Your task to perform on an android device: open app "Nova Launcher" (install if not already installed) and go to login screen Image 0: 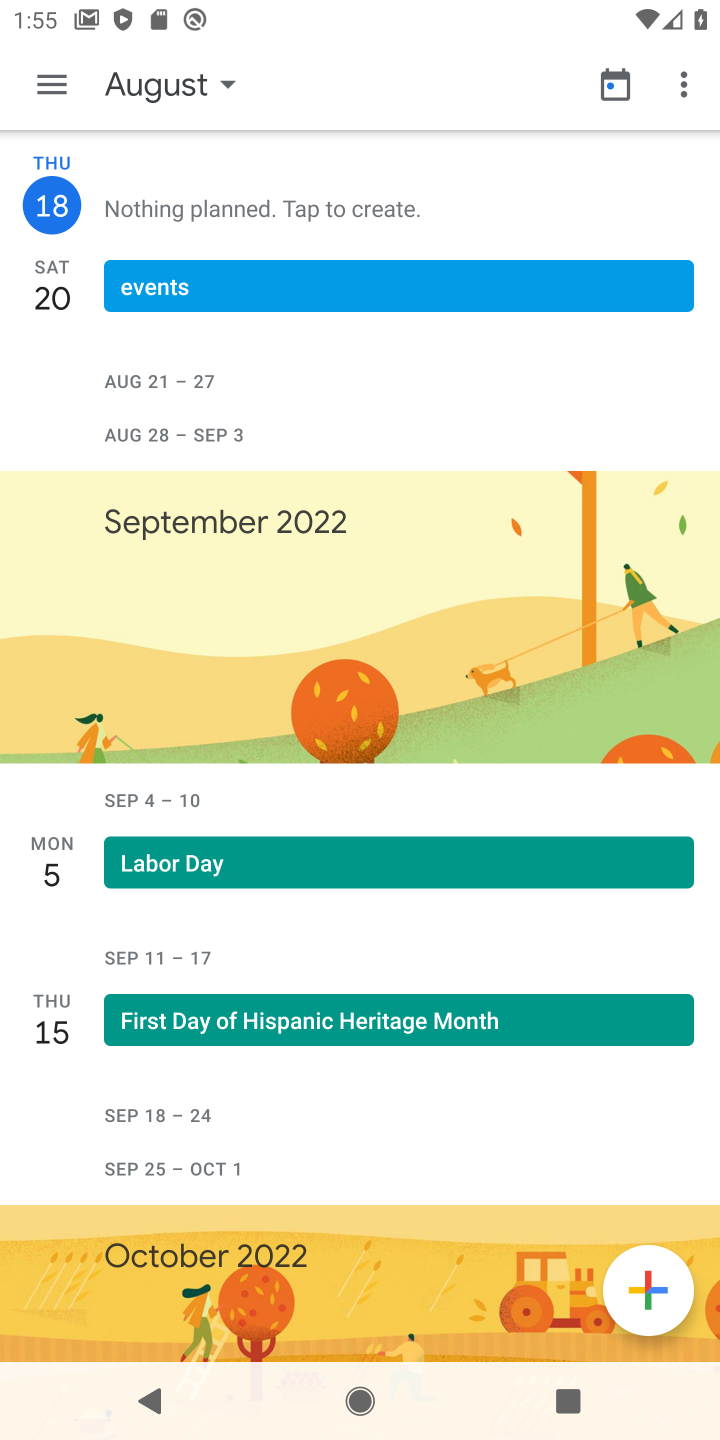
Step 0: press home button
Your task to perform on an android device: open app "Nova Launcher" (install if not already installed) and go to login screen Image 1: 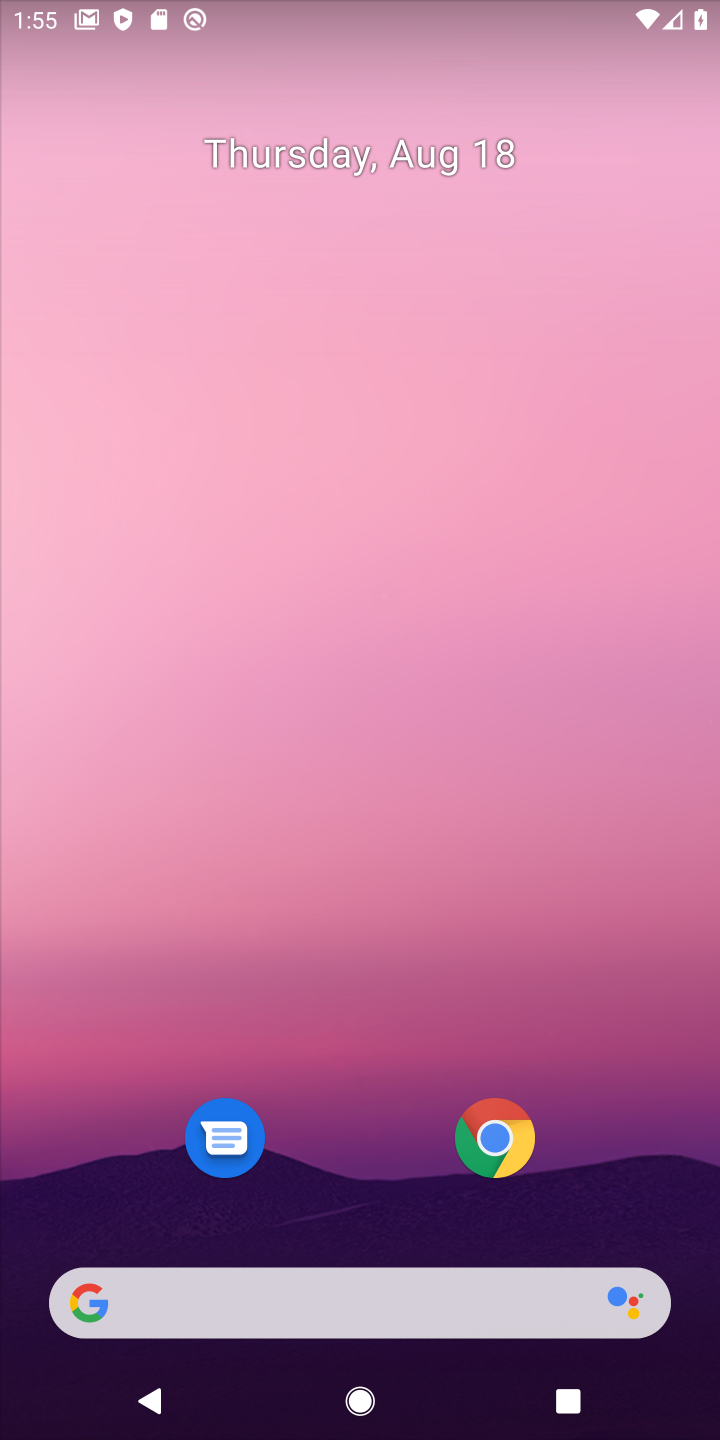
Step 1: drag from (329, 872) to (413, 361)
Your task to perform on an android device: open app "Nova Launcher" (install if not already installed) and go to login screen Image 2: 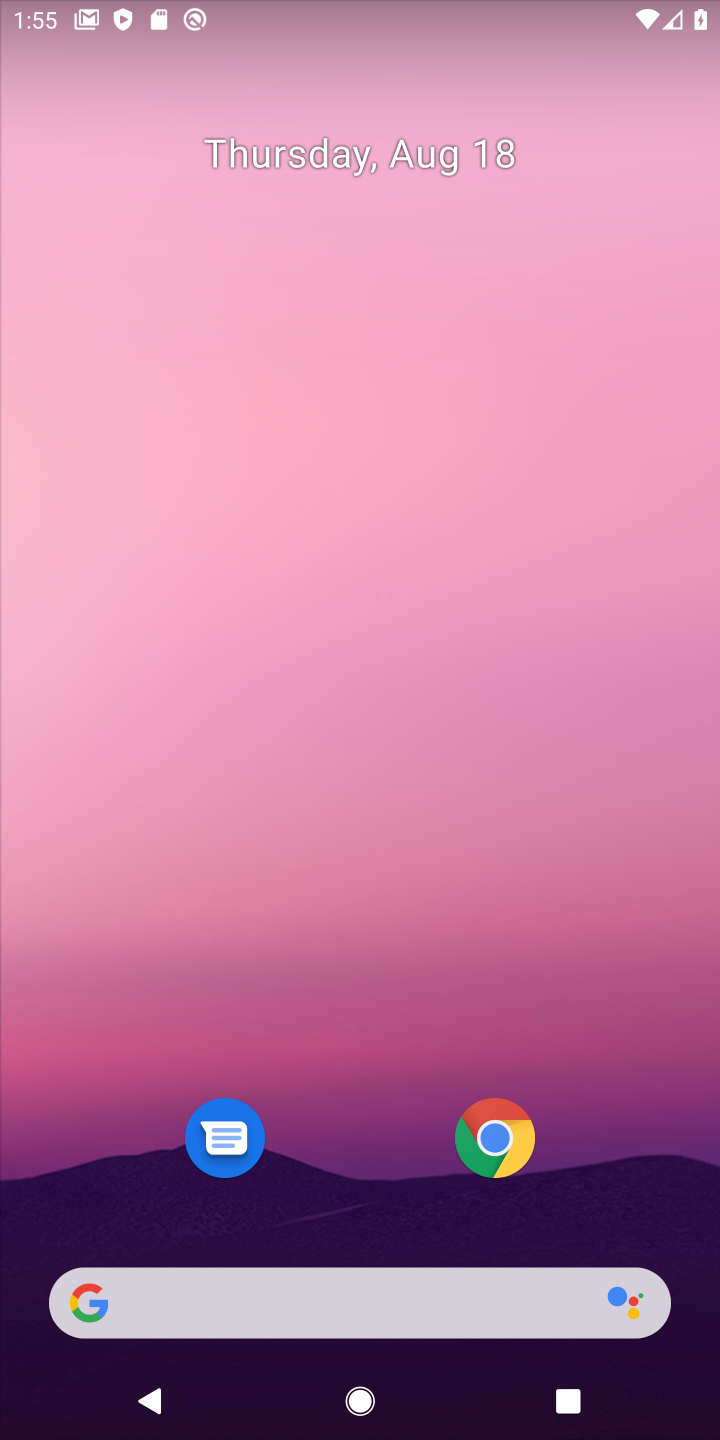
Step 2: drag from (488, 901) to (543, 235)
Your task to perform on an android device: open app "Nova Launcher" (install if not already installed) and go to login screen Image 3: 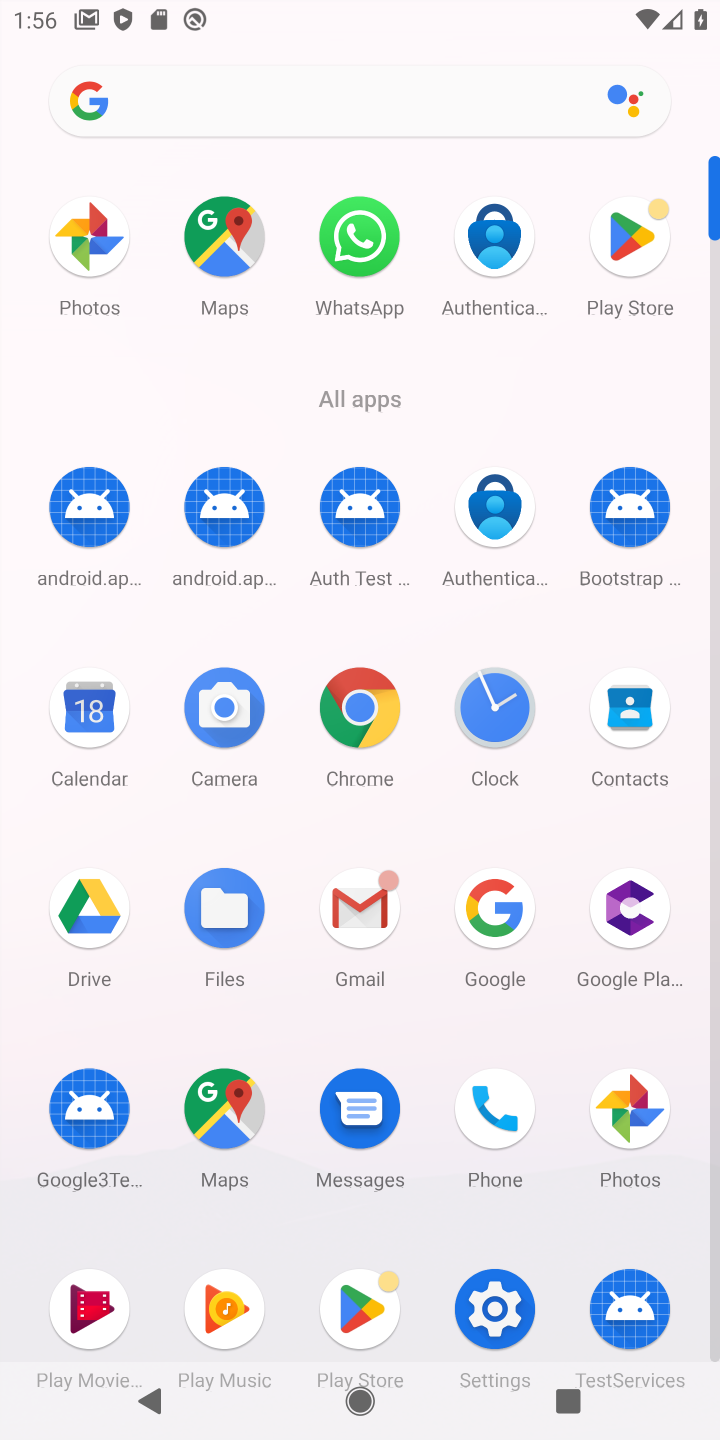
Step 3: click (359, 1299)
Your task to perform on an android device: open app "Nova Launcher" (install if not already installed) and go to login screen Image 4: 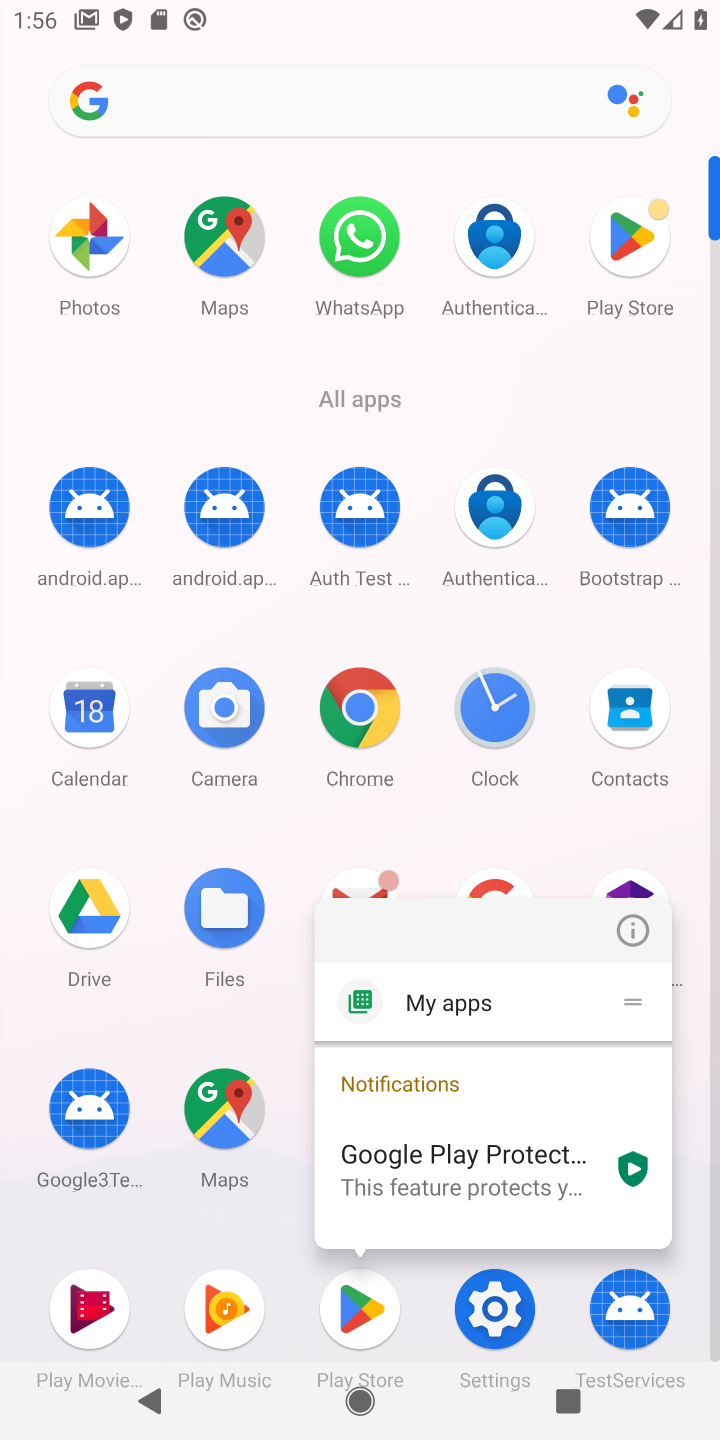
Step 4: click (375, 1328)
Your task to perform on an android device: open app "Nova Launcher" (install if not already installed) and go to login screen Image 5: 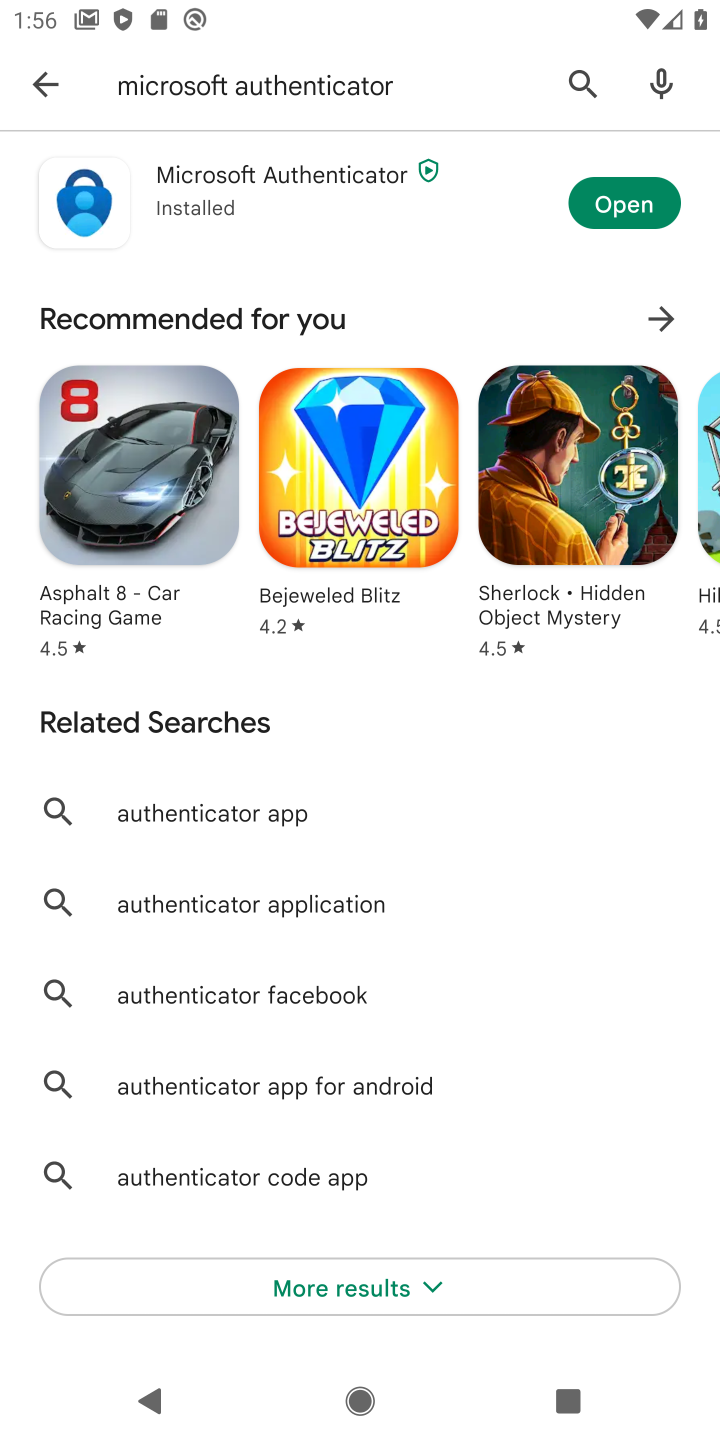
Step 5: click (46, 77)
Your task to perform on an android device: open app "Nova Launcher" (install if not already installed) and go to login screen Image 6: 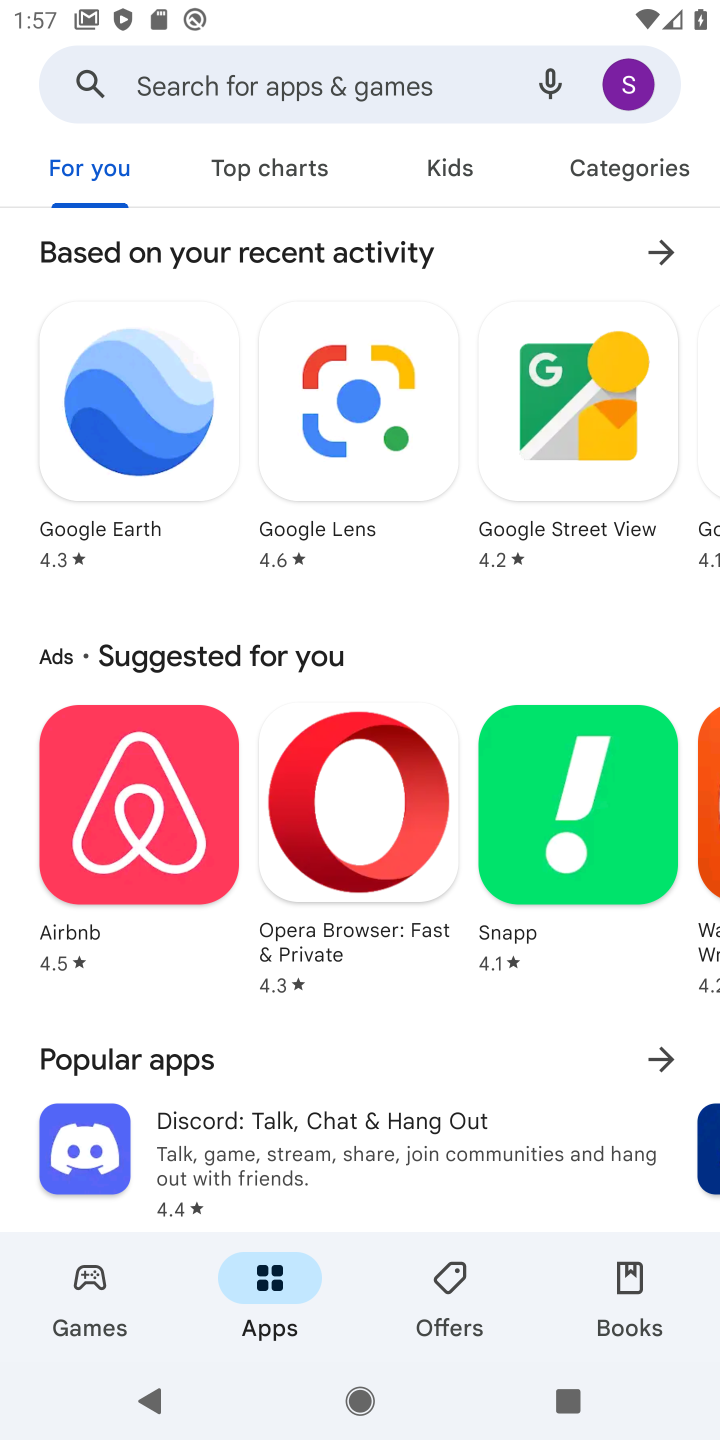
Step 6: click (317, 84)
Your task to perform on an android device: open app "Nova Launcher" (install if not already installed) and go to login screen Image 7: 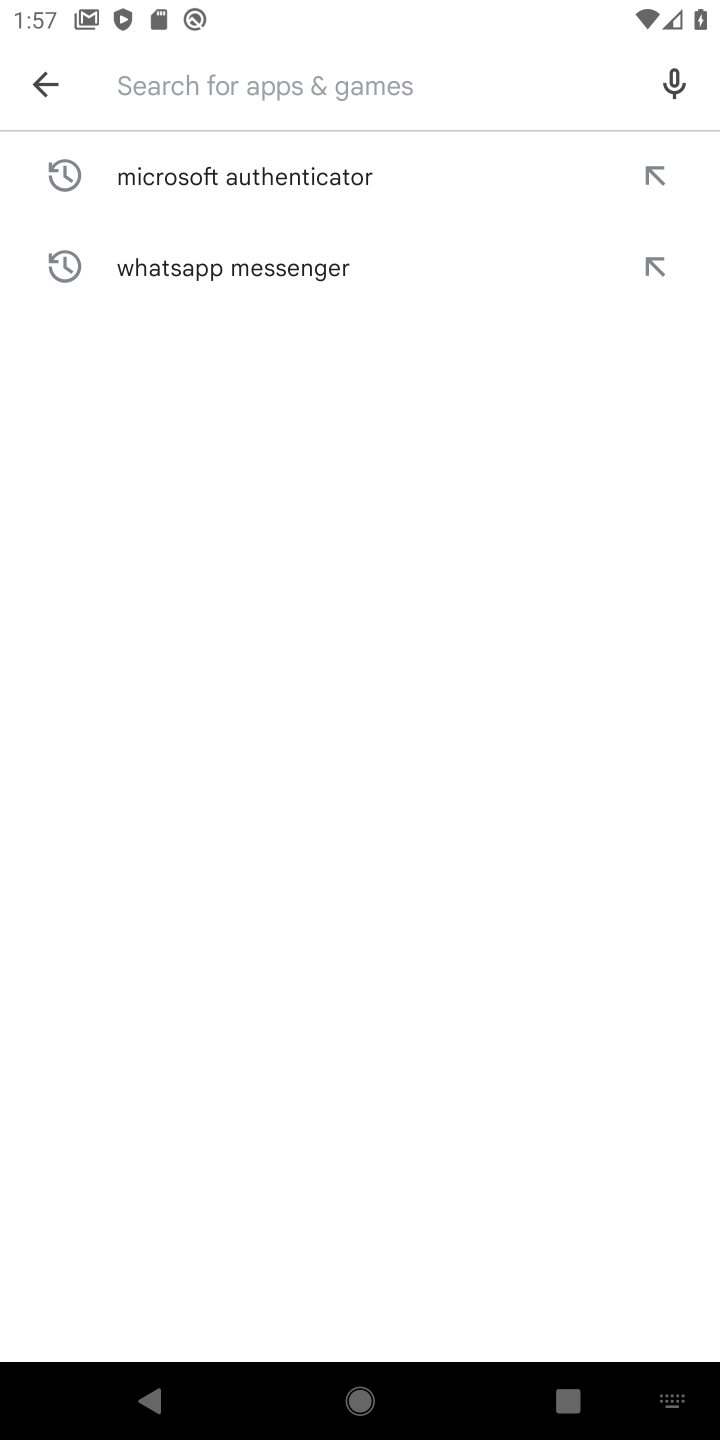
Step 7: type "Nova Launcher"
Your task to perform on an android device: open app "Nova Launcher" (install if not already installed) and go to login screen Image 8: 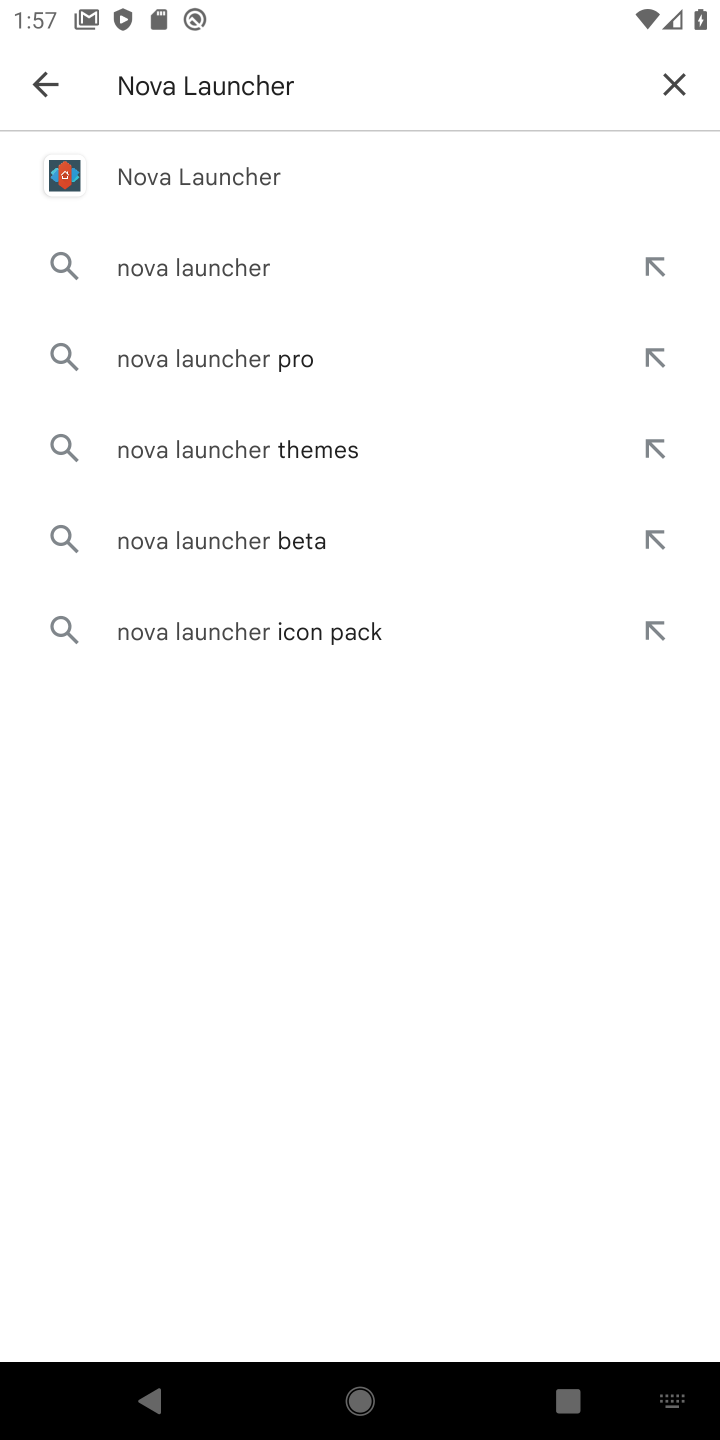
Step 8: click (249, 165)
Your task to perform on an android device: open app "Nova Launcher" (install if not already installed) and go to login screen Image 9: 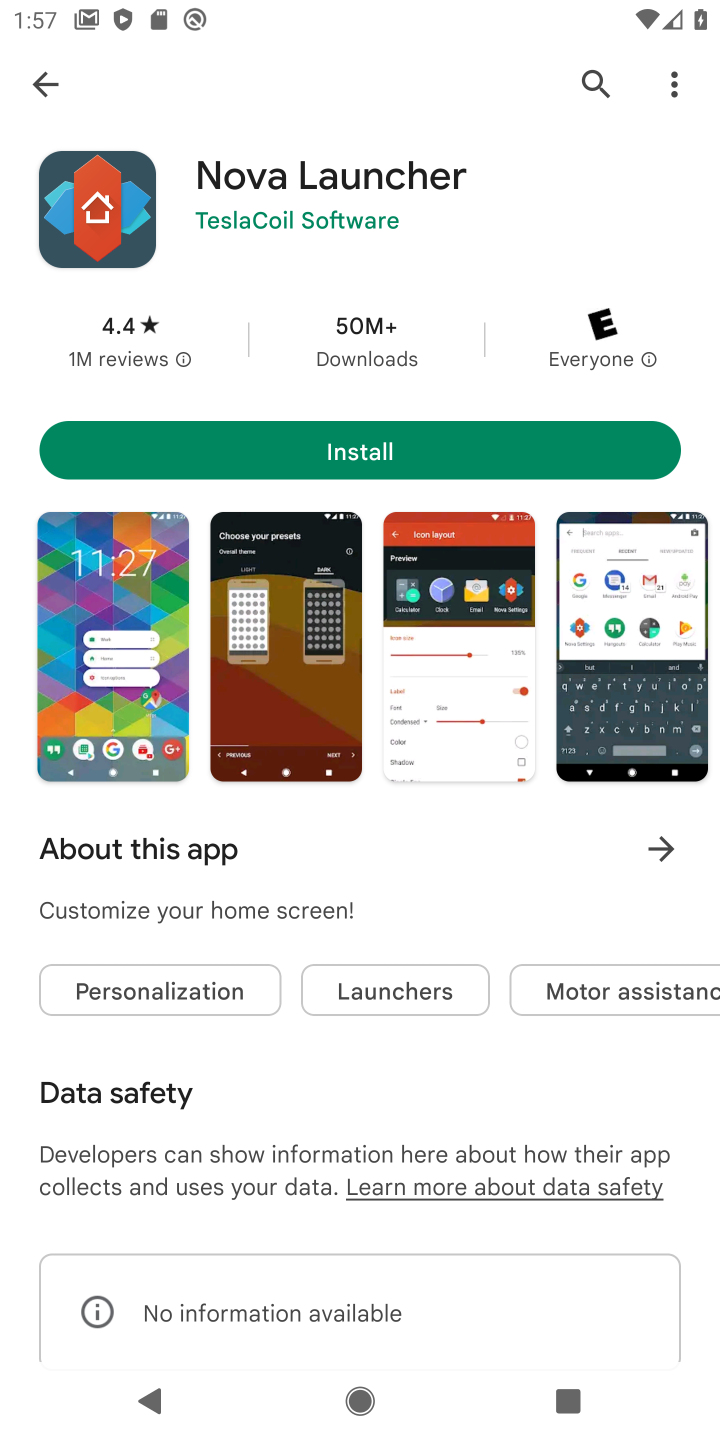
Step 9: click (386, 461)
Your task to perform on an android device: open app "Nova Launcher" (install if not already installed) and go to login screen Image 10: 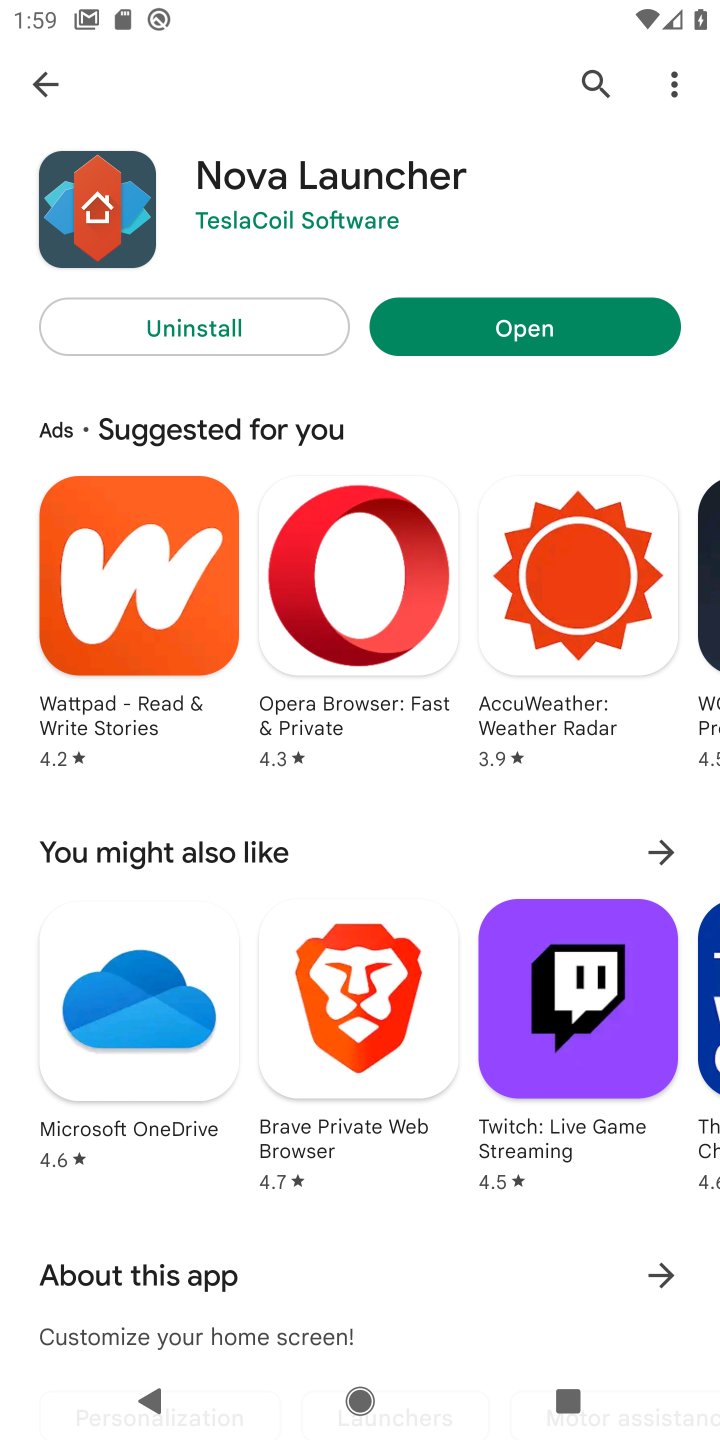
Step 10: click (533, 329)
Your task to perform on an android device: open app "Nova Launcher" (install if not already installed) and go to login screen Image 11: 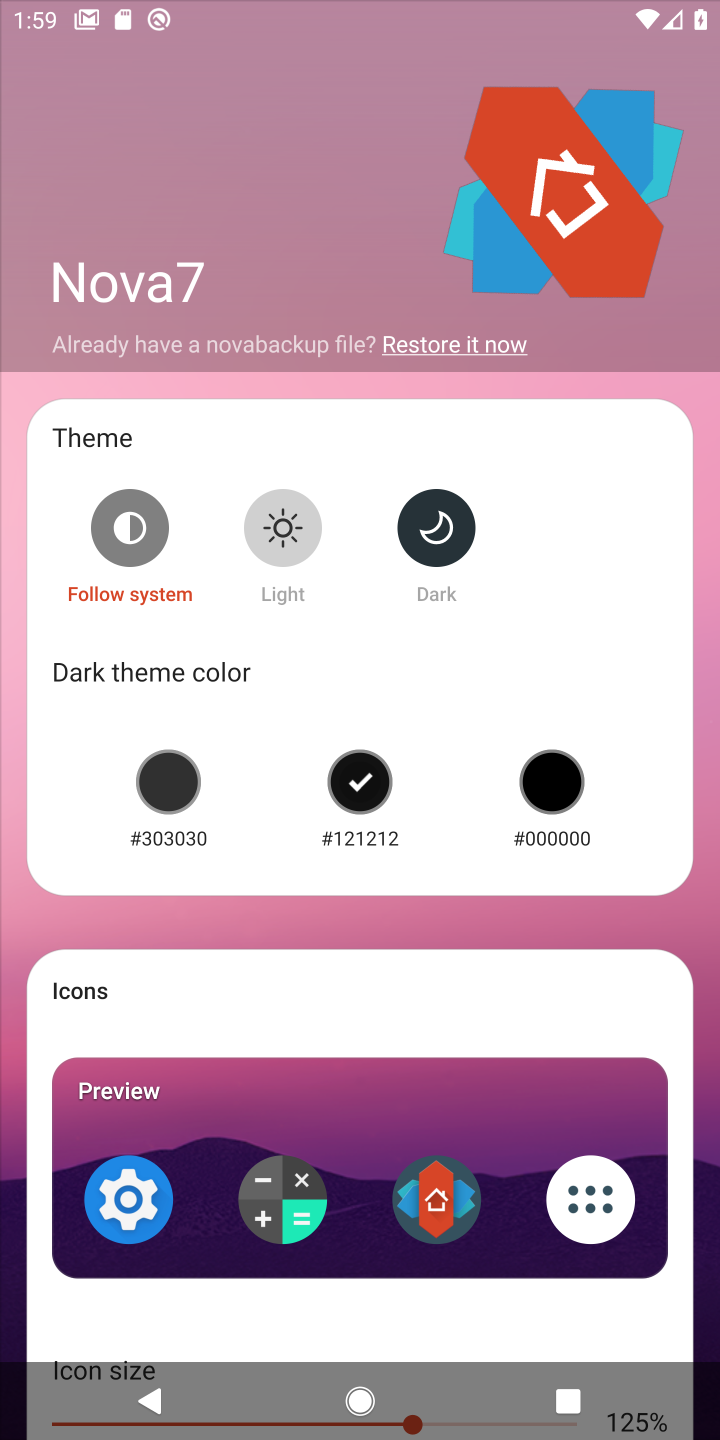
Step 11: task complete